Your task to perform on an android device: Go to network settings Image 0: 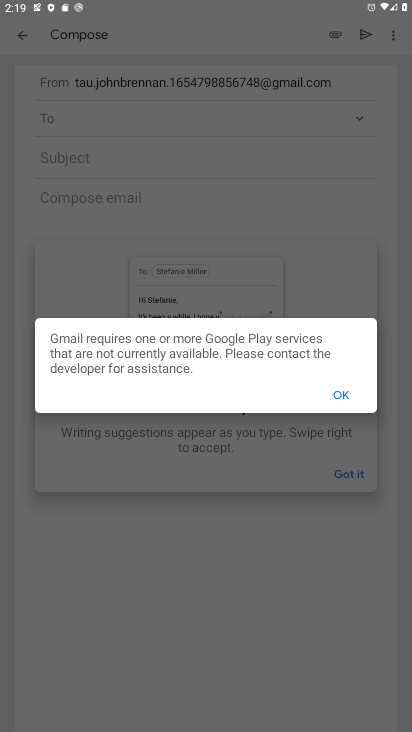
Step 0: press home button
Your task to perform on an android device: Go to network settings Image 1: 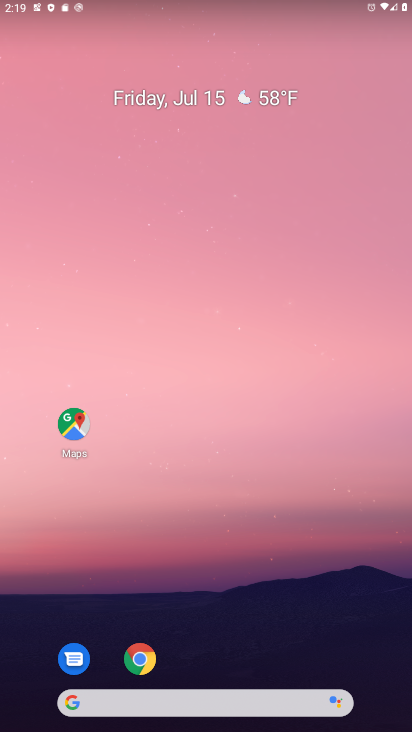
Step 1: drag from (240, 627) to (234, 84)
Your task to perform on an android device: Go to network settings Image 2: 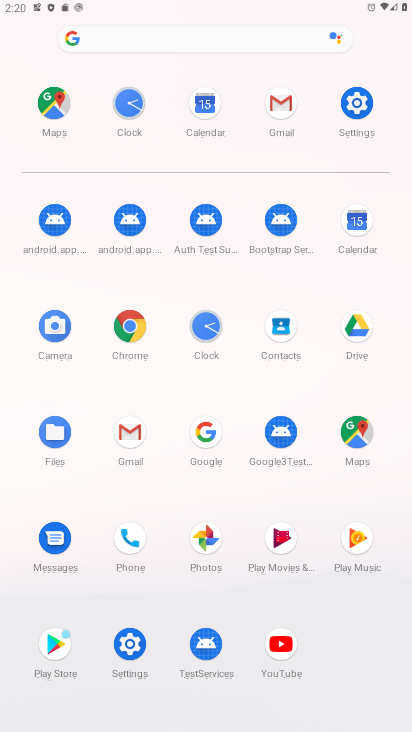
Step 2: click (356, 112)
Your task to perform on an android device: Go to network settings Image 3: 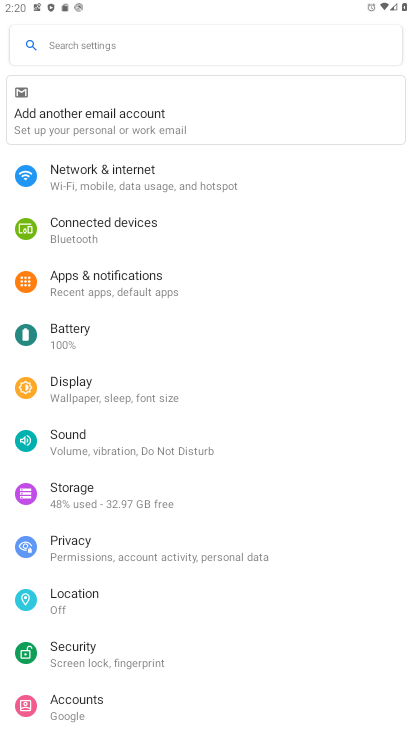
Step 3: click (106, 177)
Your task to perform on an android device: Go to network settings Image 4: 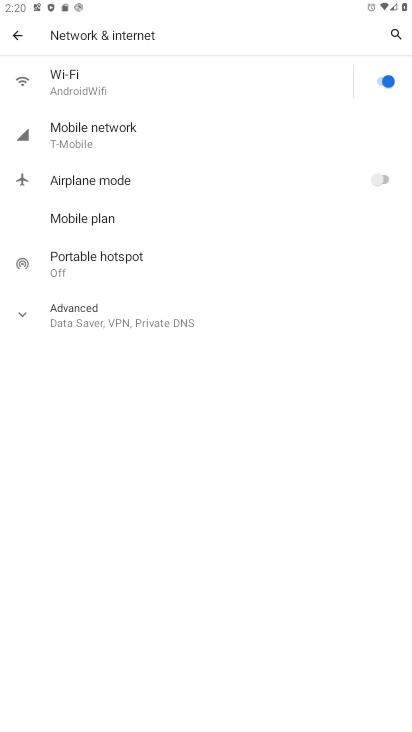
Step 4: task complete